Your task to perform on an android device: toggle location history Image 0: 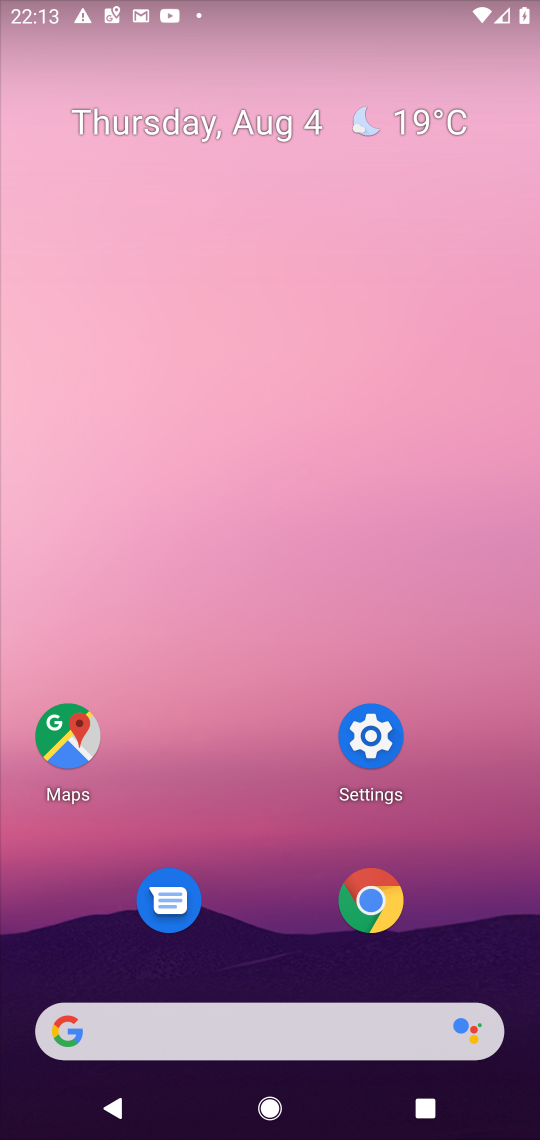
Step 0: click (55, 711)
Your task to perform on an android device: toggle location history Image 1: 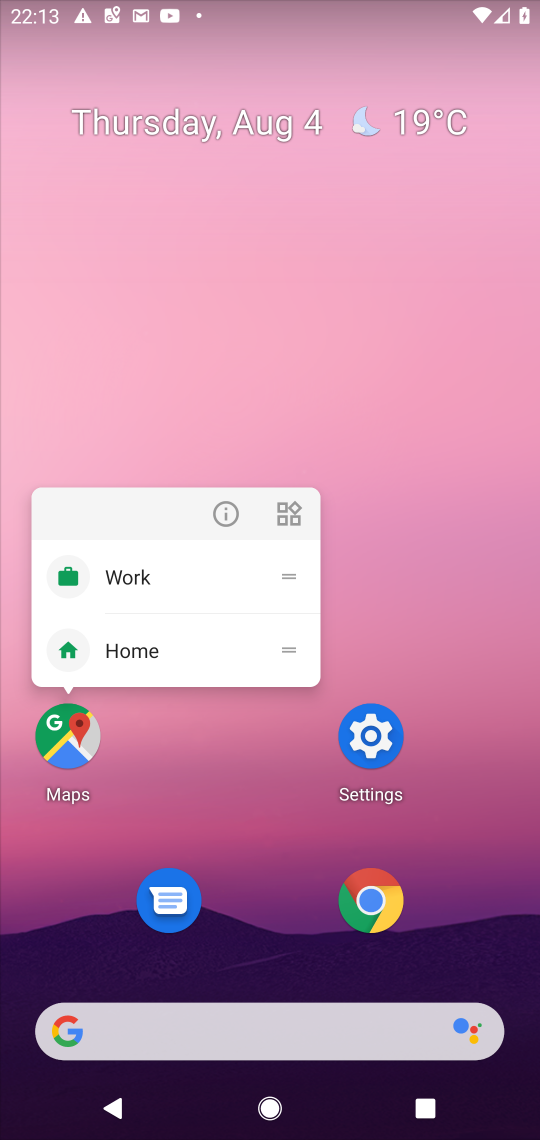
Step 1: click (54, 737)
Your task to perform on an android device: toggle location history Image 2: 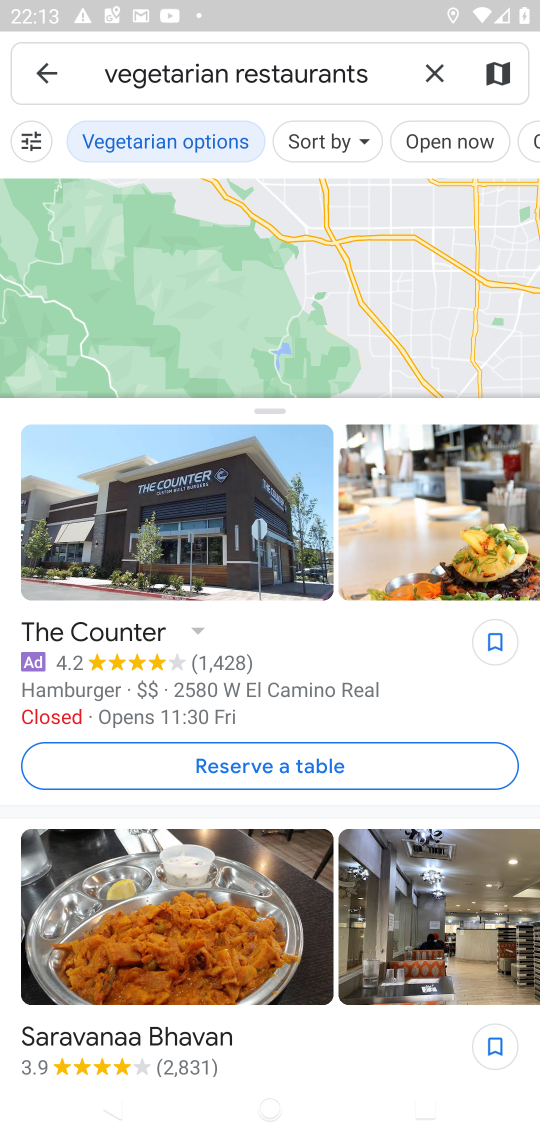
Step 2: click (430, 76)
Your task to perform on an android device: toggle location history Image 3: 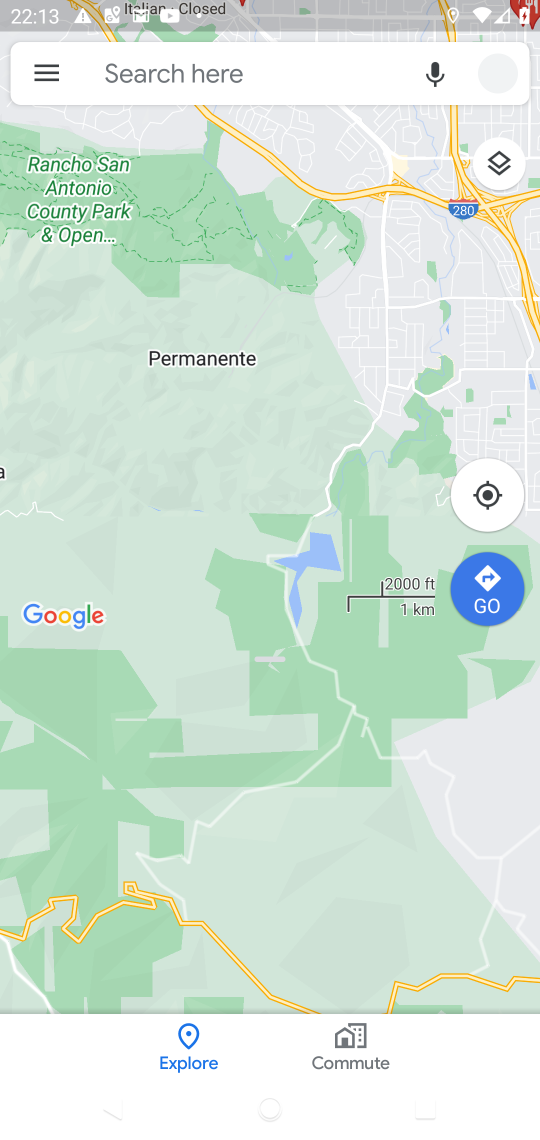
Step 3: click (39, 69)
Your task to perform on an android device: toggle location history Image 4: 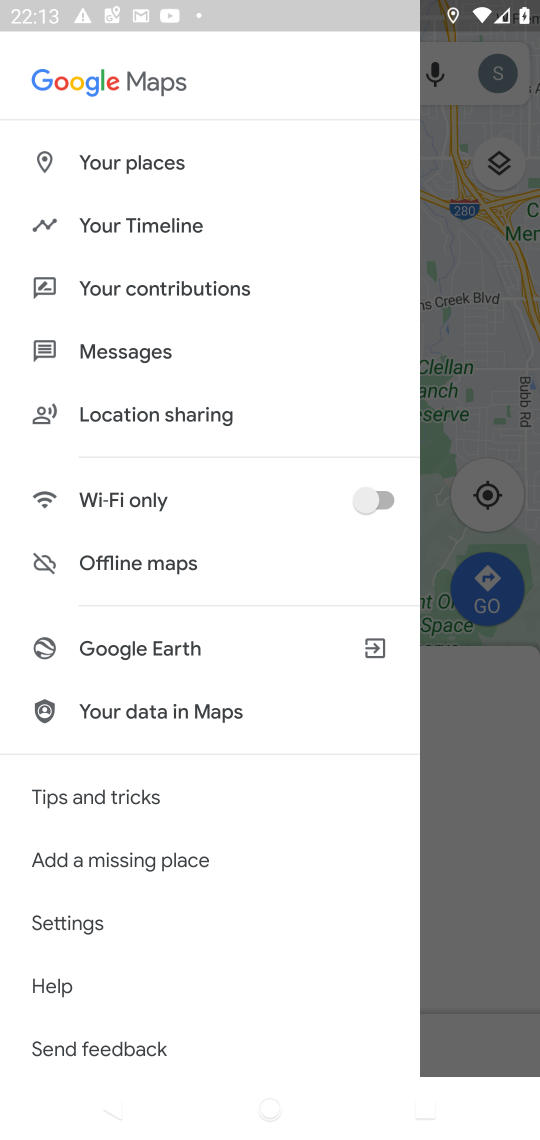
Step 4: click (134, 207)
Your task to perform on an android device: toggle location history Image 5: 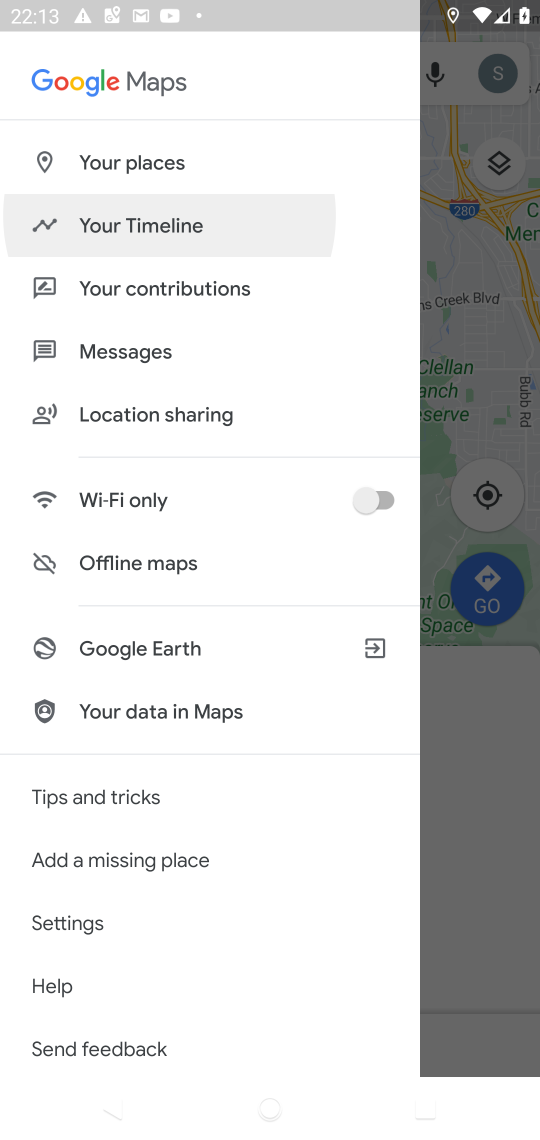
Step 5: click (124, 222)
Your task to perform on an android device: toggle location history Image 6: 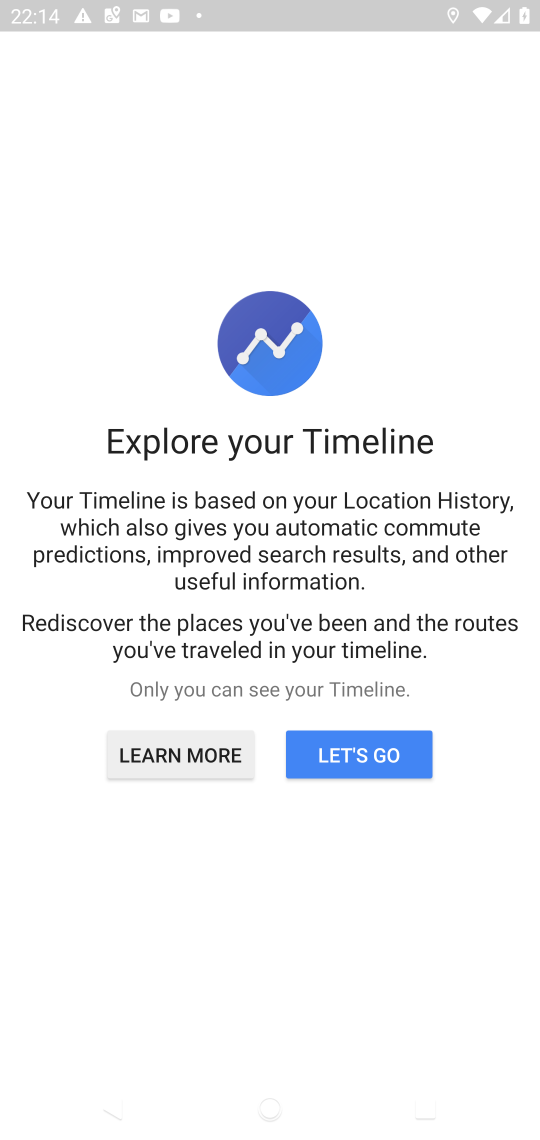
Step 6: click (355, 749)
Your task to perform on an android device: toggle location history Image 7: 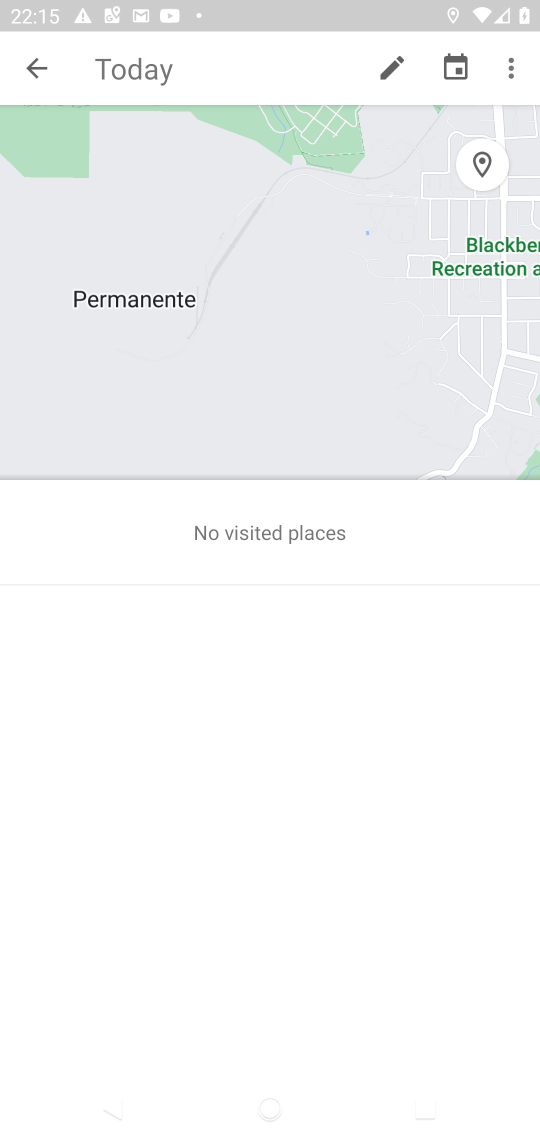
Step 7: click (508, 71)
Your task to perform on an android device: toggle location history Image 8: 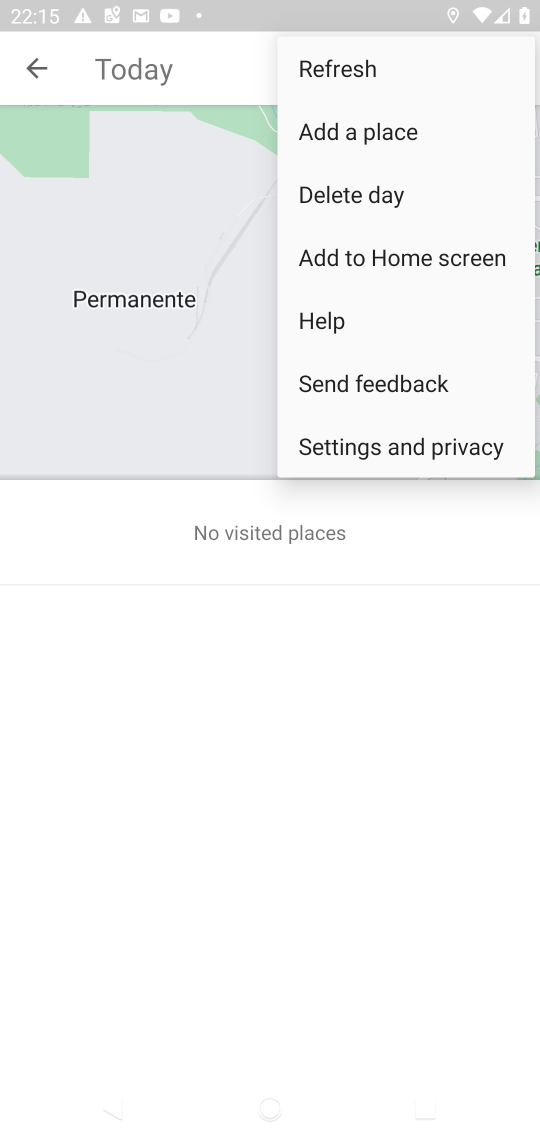
Step 8: click (359, 436)
Your task to perform on an android device: toggle location history Image 9: 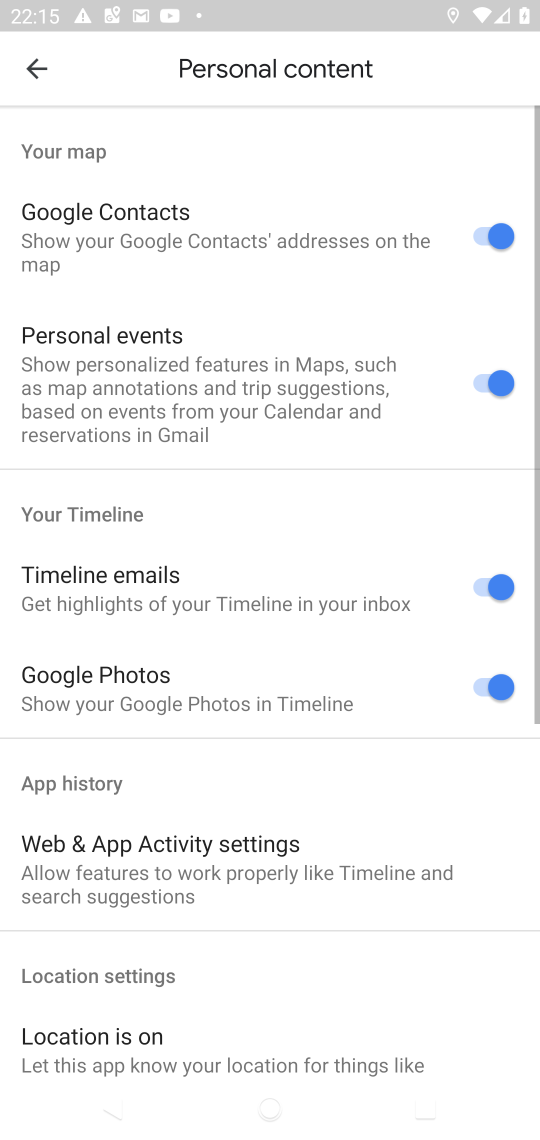
Step 9: drag from (328, 907) to (426, 327)
Your task to perform on an android device: toggle location history Image 10: 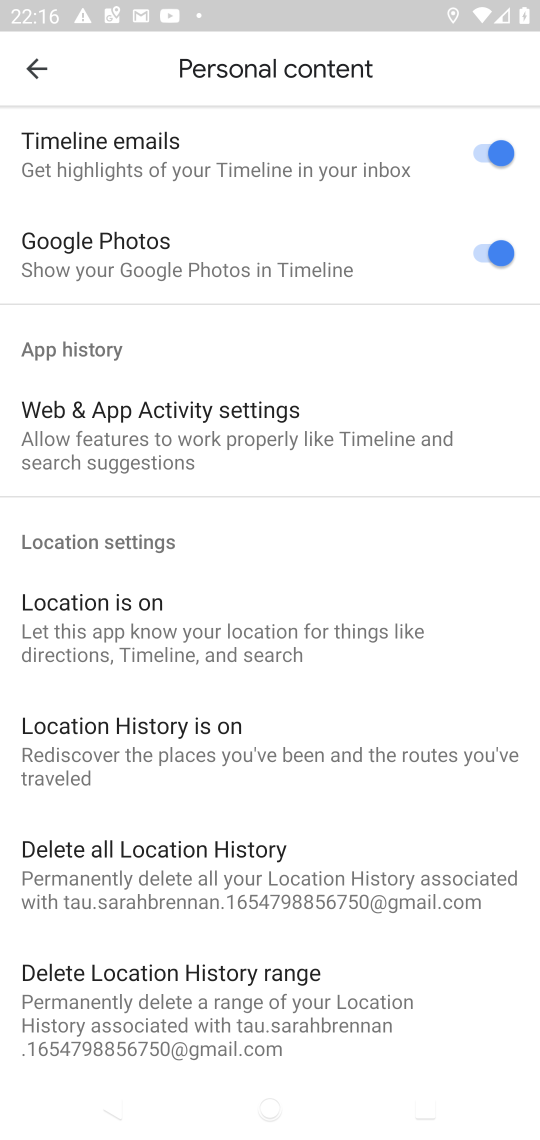
Step 10: click (176, 734)
Your task to perform on an android device: toggle location history Image 11: 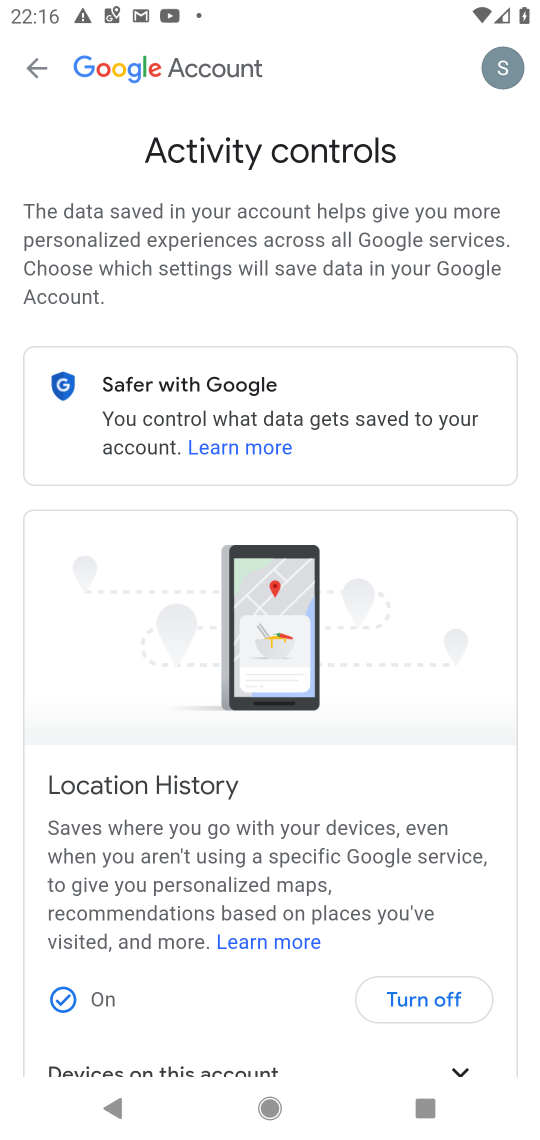
Step 11: click (409, 1006)
Your task to perform on an android device: toggle location history Image 12: 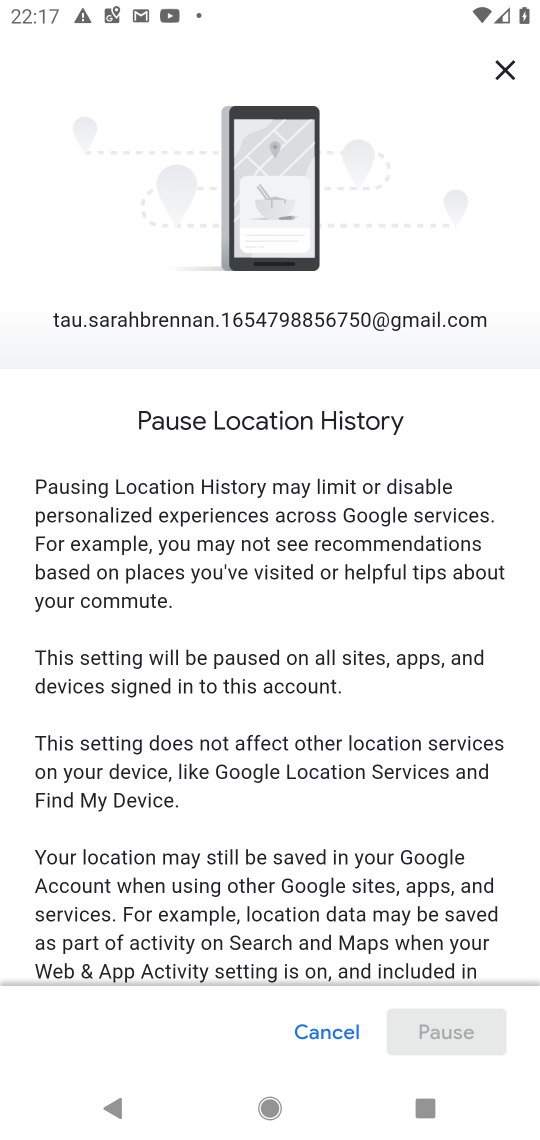
Step 12: drag from (362, 927) to (333, 179)
Your task to perform on an android device: toggle location history Image 13: 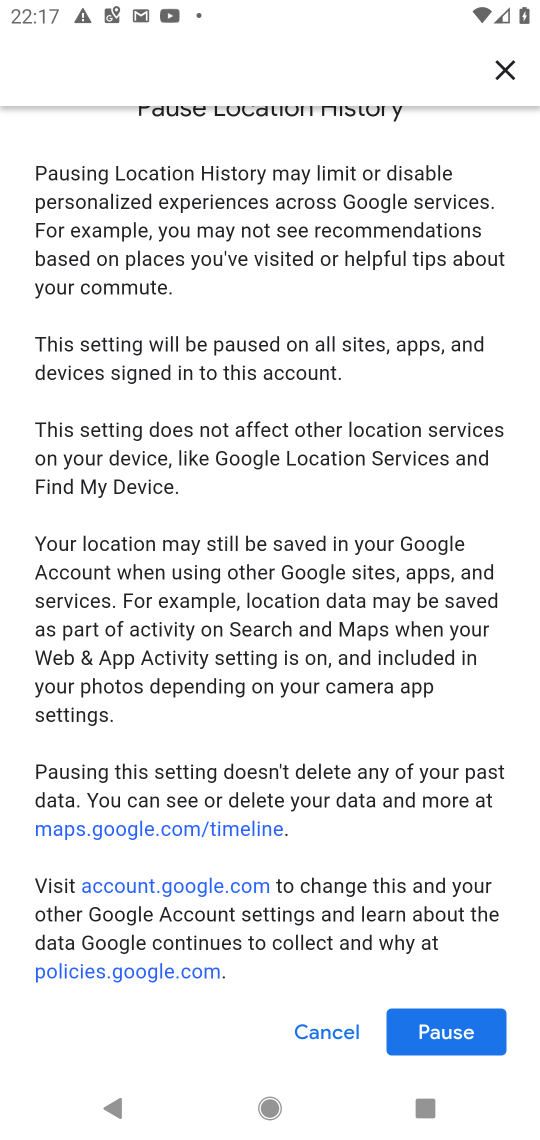
Step 13: drag from (377, 846) to (507, 284)
Your task to perform on an android device: toggle location history Image 14: 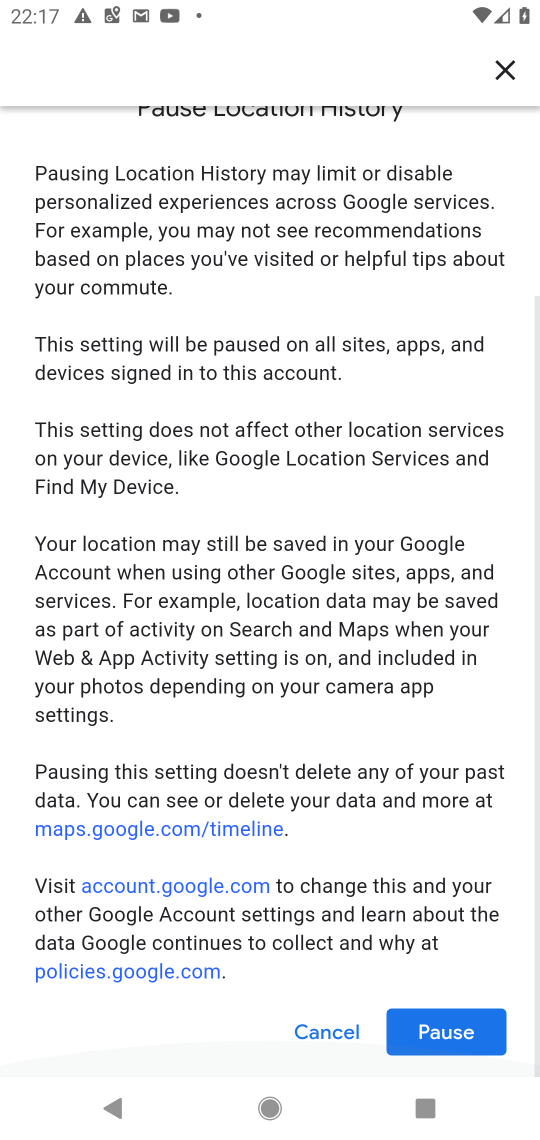
Step 14: click (440, 1026)
Your task to perform on an android device: toggle location history Image 15: 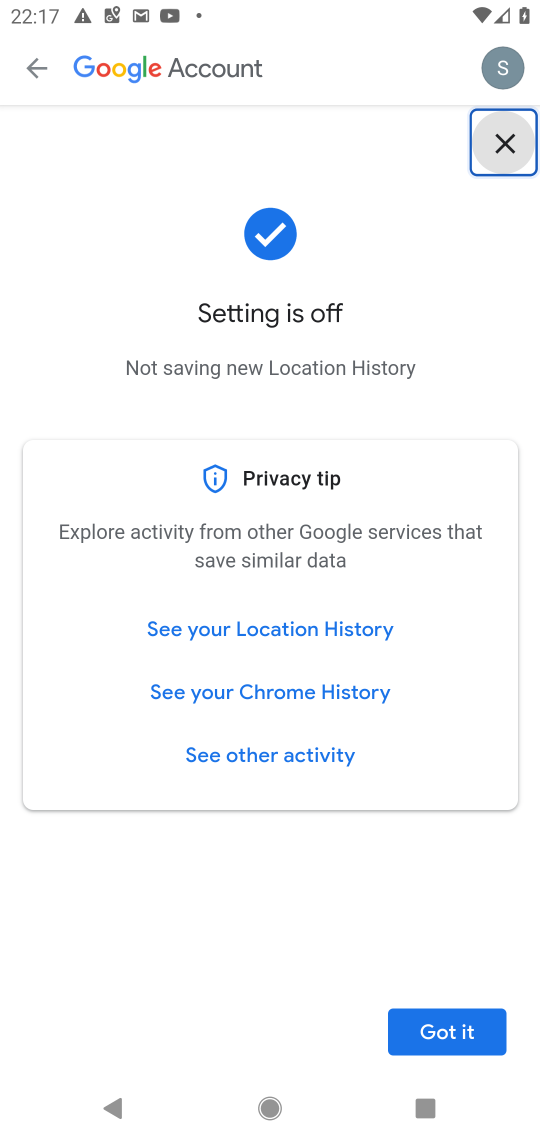
Step 15: click (440, 1027)
Your task to perform on an android device: toggle location history Image 16: 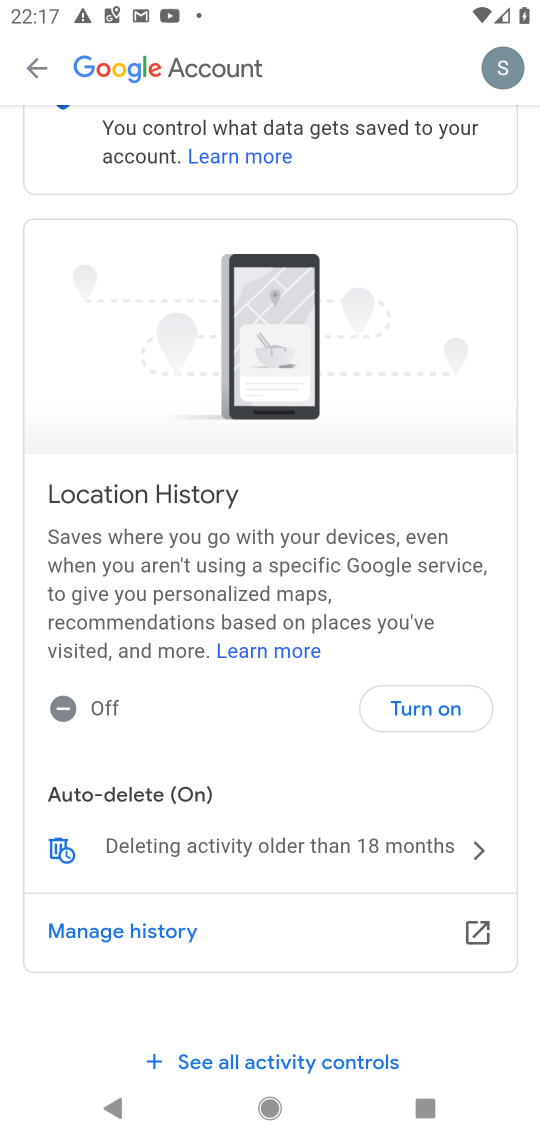
Step 16: task complete